Your task to perform on an android device: Clear the cart on amazon.com. Add apple airpods pro to the cart on amazon.com, then select checkout. Image 0: 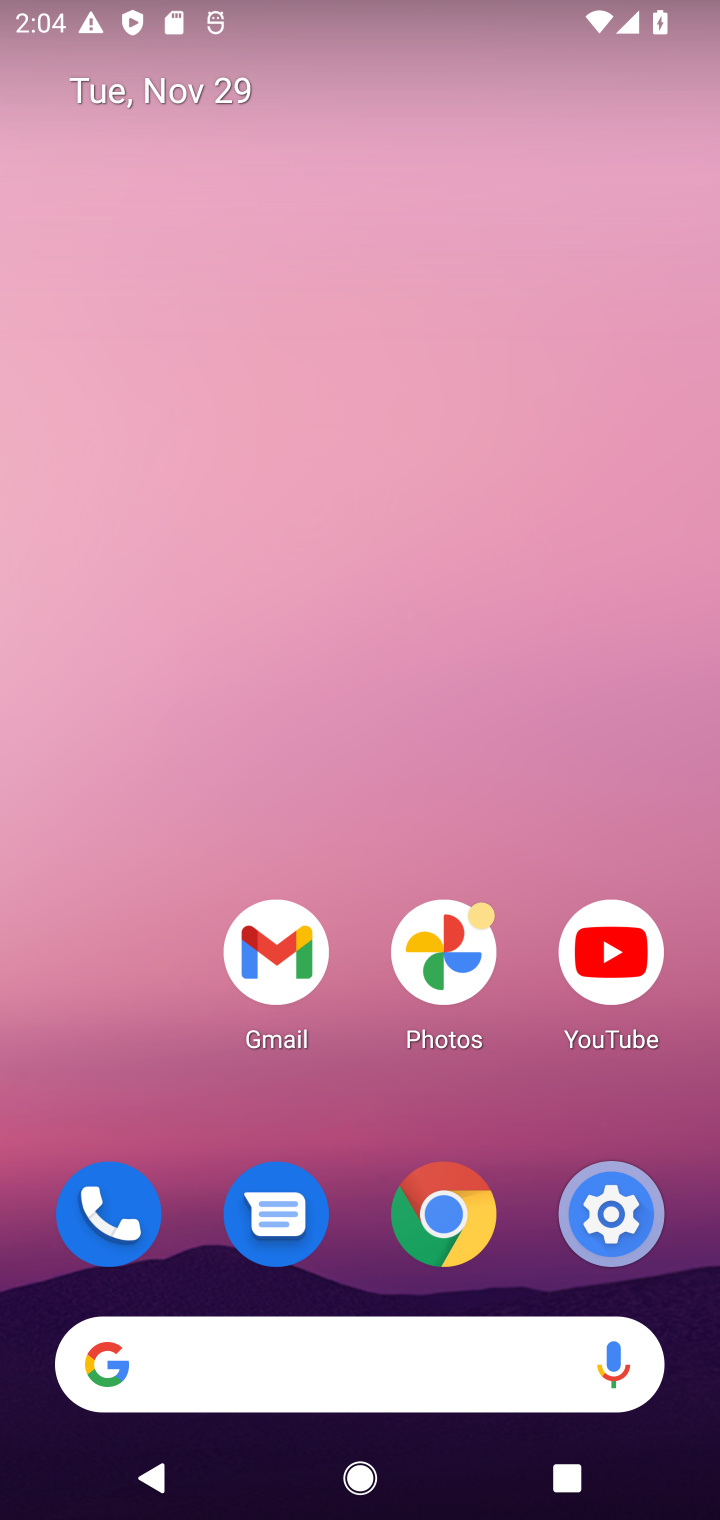
Step 0: click (456, 1360)
Your task to perform on an android device: Clear the cart on amazon.com. Add apple airpods pro to the cart on amazon.com, then select checkout. Image 1: 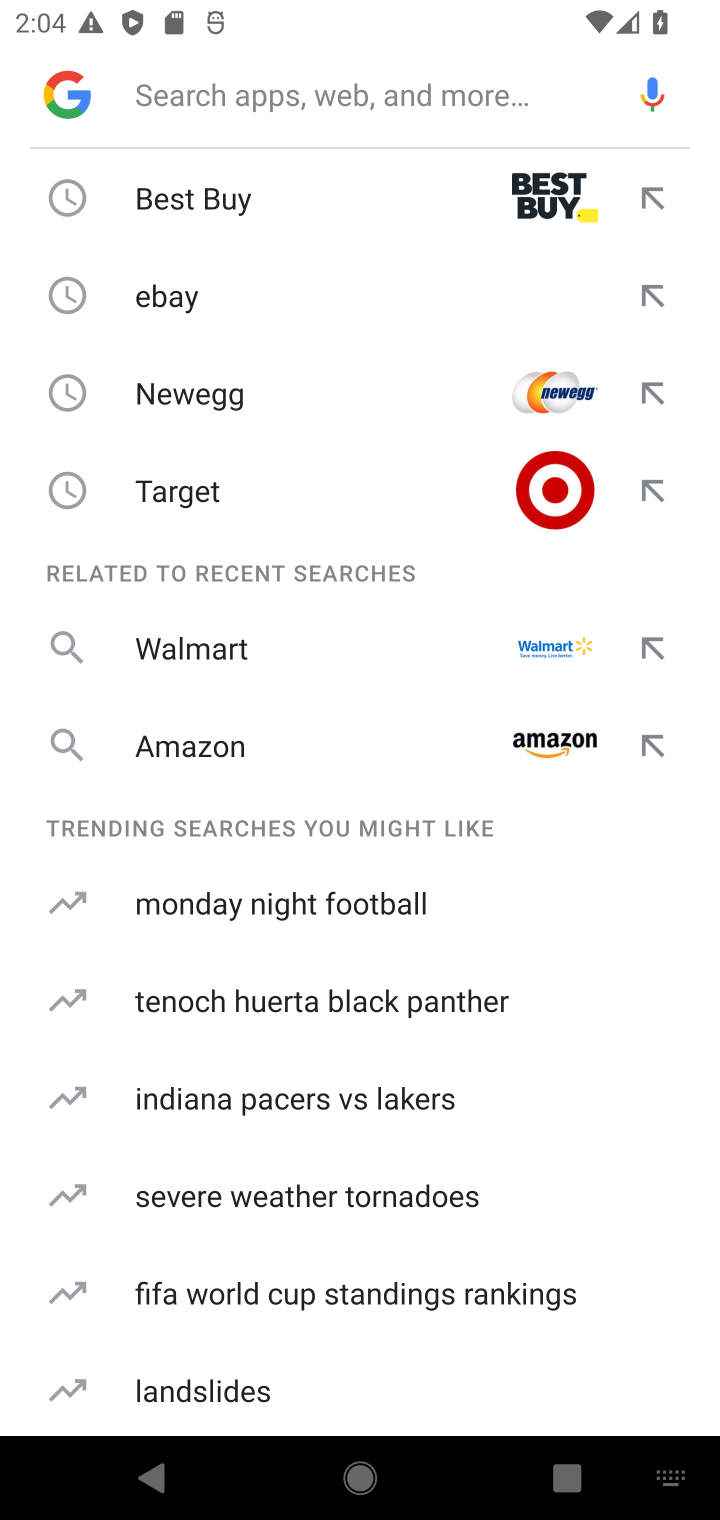
Step 1: type "amazon "
Your task to perform on an android device: Clear the cart on amazon.com. Add apple airpods pro to the cart on amazon.com, then select checkout. Image 2: 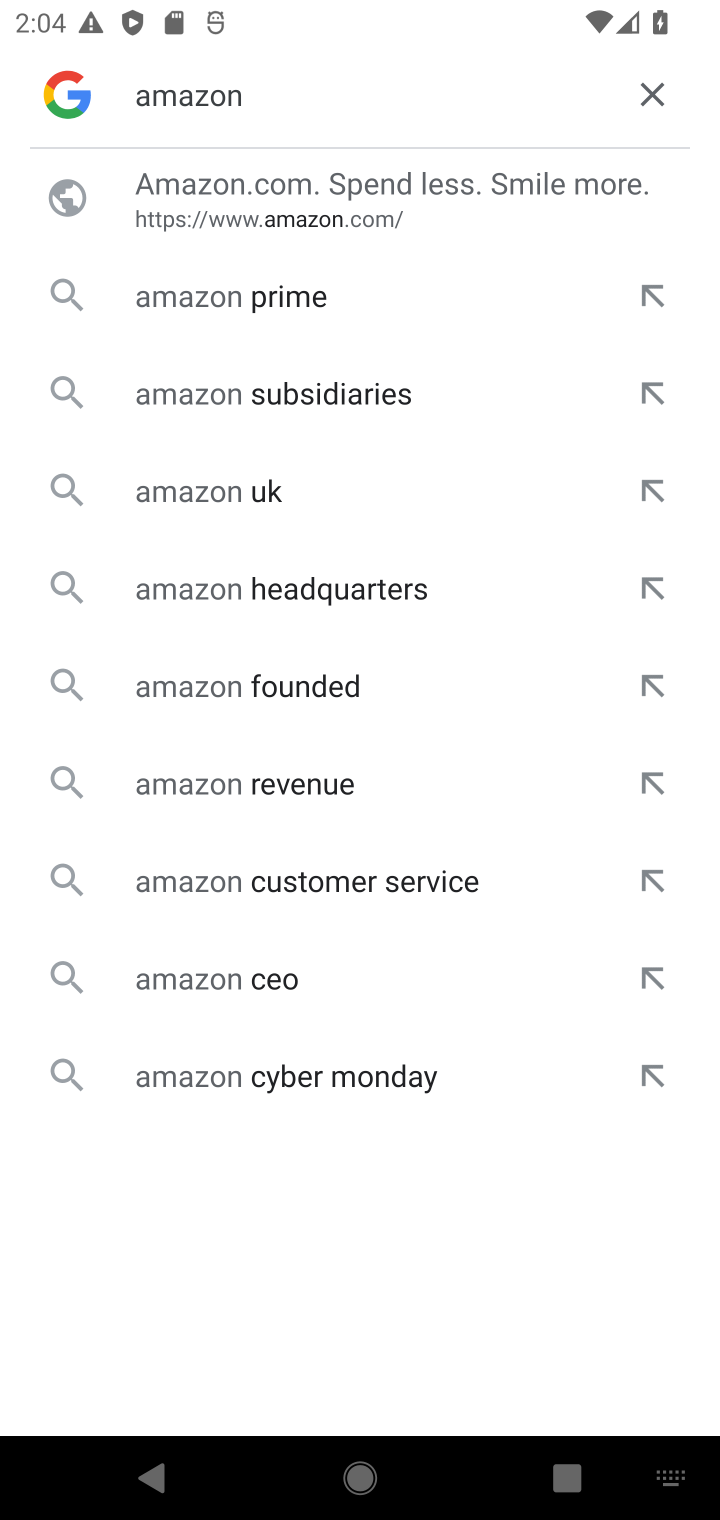
Step 2: click (310, 212)
Your task to perform on an android device: Clear the cart on amazon.com. Add apple airpods pro to the cart on amazon.com, then select checkout. Image 3: 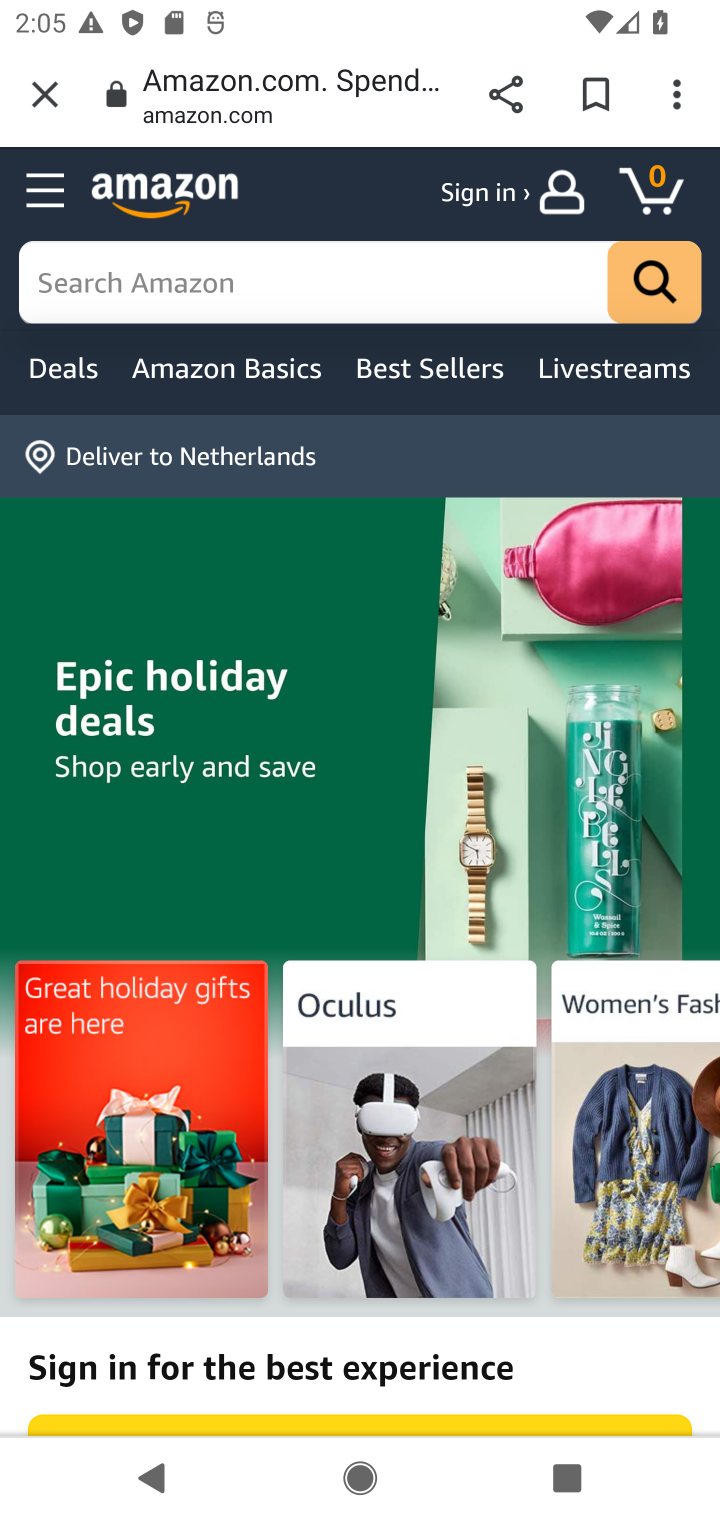
Step 3: click (290, 277)
Your task to perform on an android device: Clear the cart on amazon.com. Add apple airpods pro to the cart on amazon.com, then select checkout. Image 4: 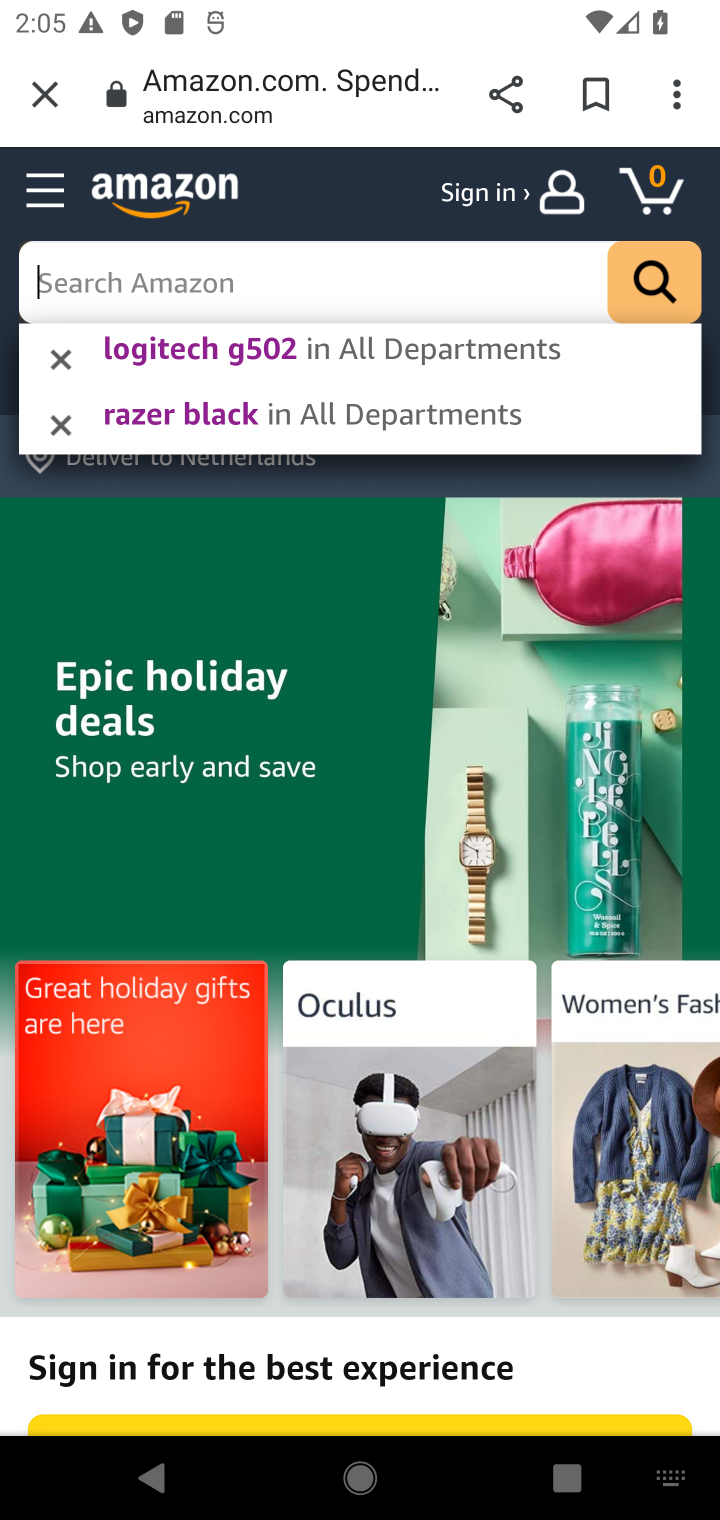
Step 4: type "apple airpod"
Your task to perform on an android device: Clear the cart on amazon.com. Add apple airpods pro to the cart on amazon.com, then select checkout. Image 5: 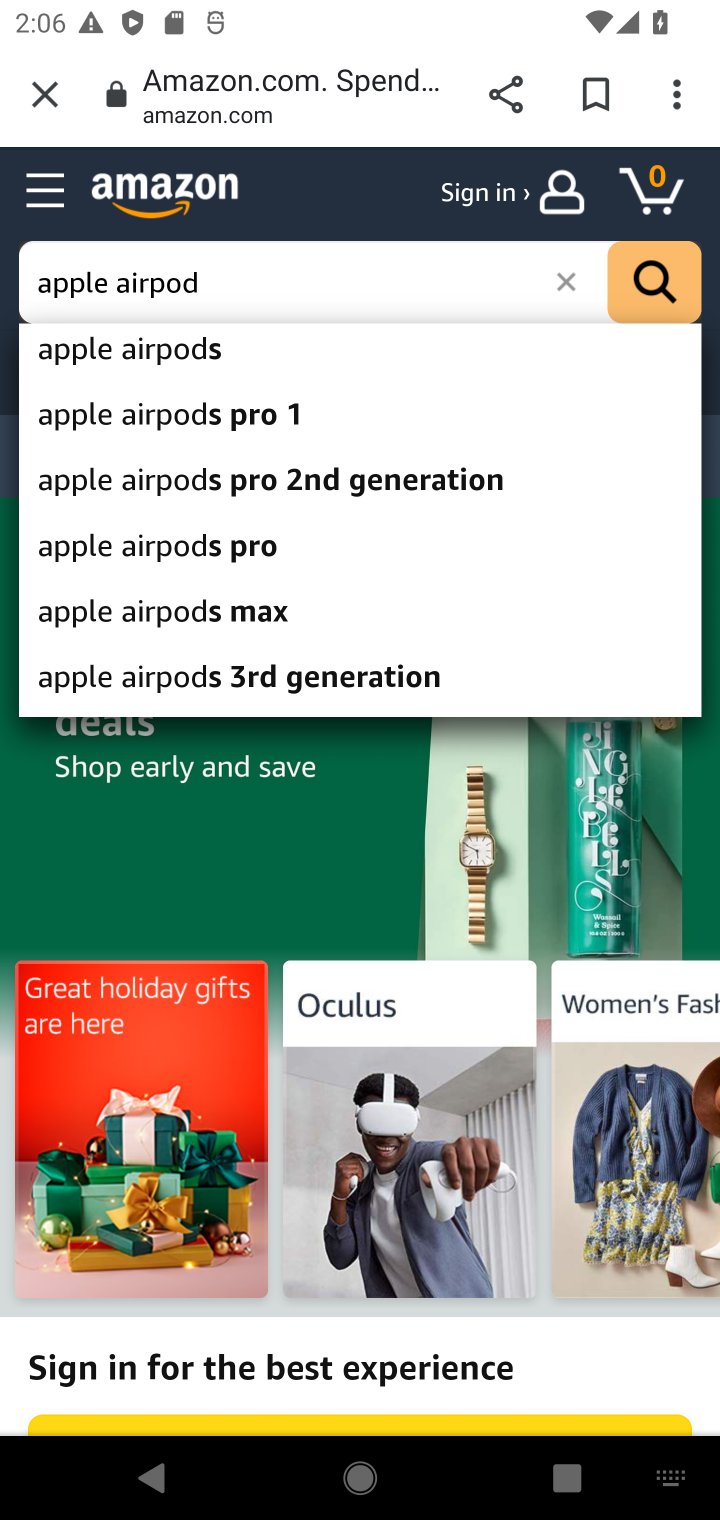
Step 5: click (155, 356)
Your task to perform on an android device: Clear the cart on amazon.com. Add apple airpods pro to the cart on amazon.com, then select checkout. Image 6: 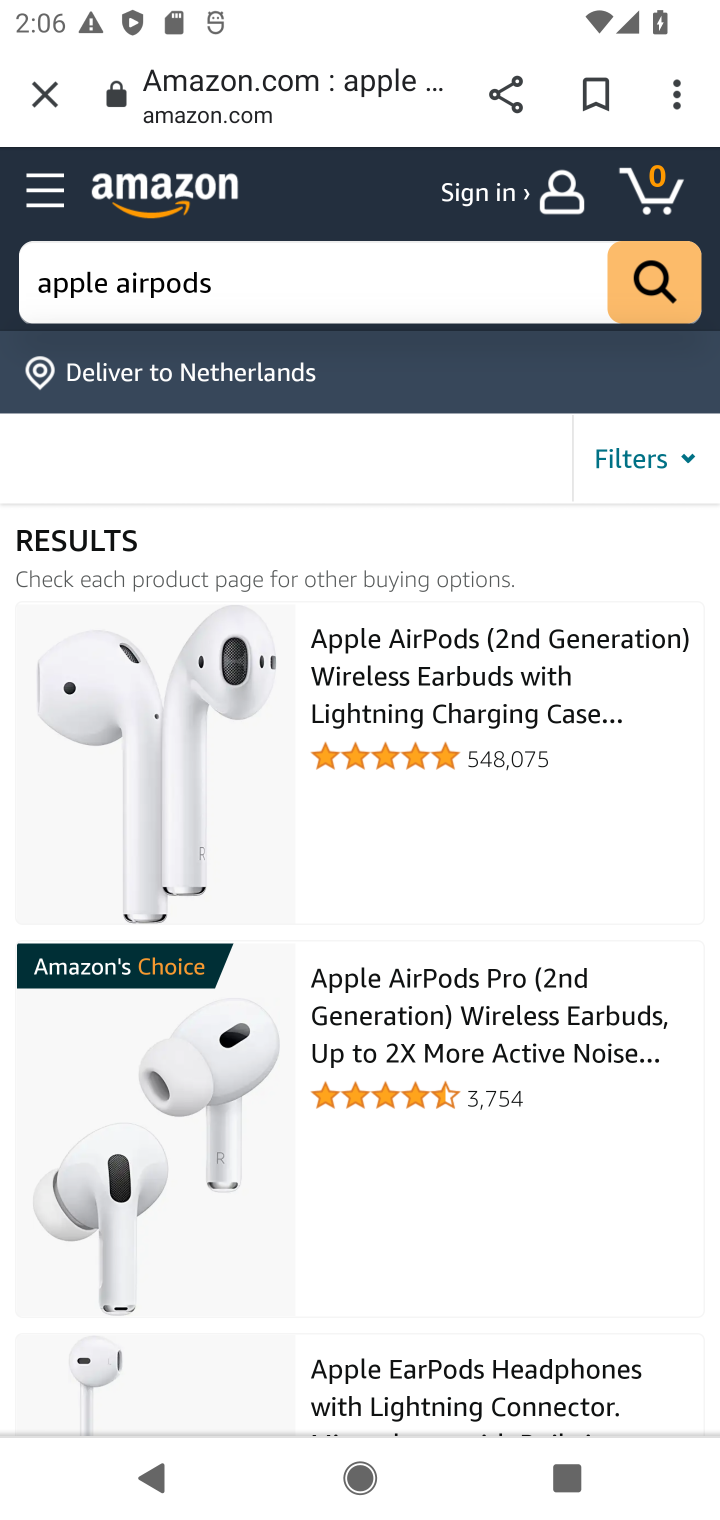
Step 6: click (378, 693)
Your task to perform on an android device: Clear the cart on amazon.com. Add apple airpods pro to the cart on amazon.com, then select checkout. Image 7: 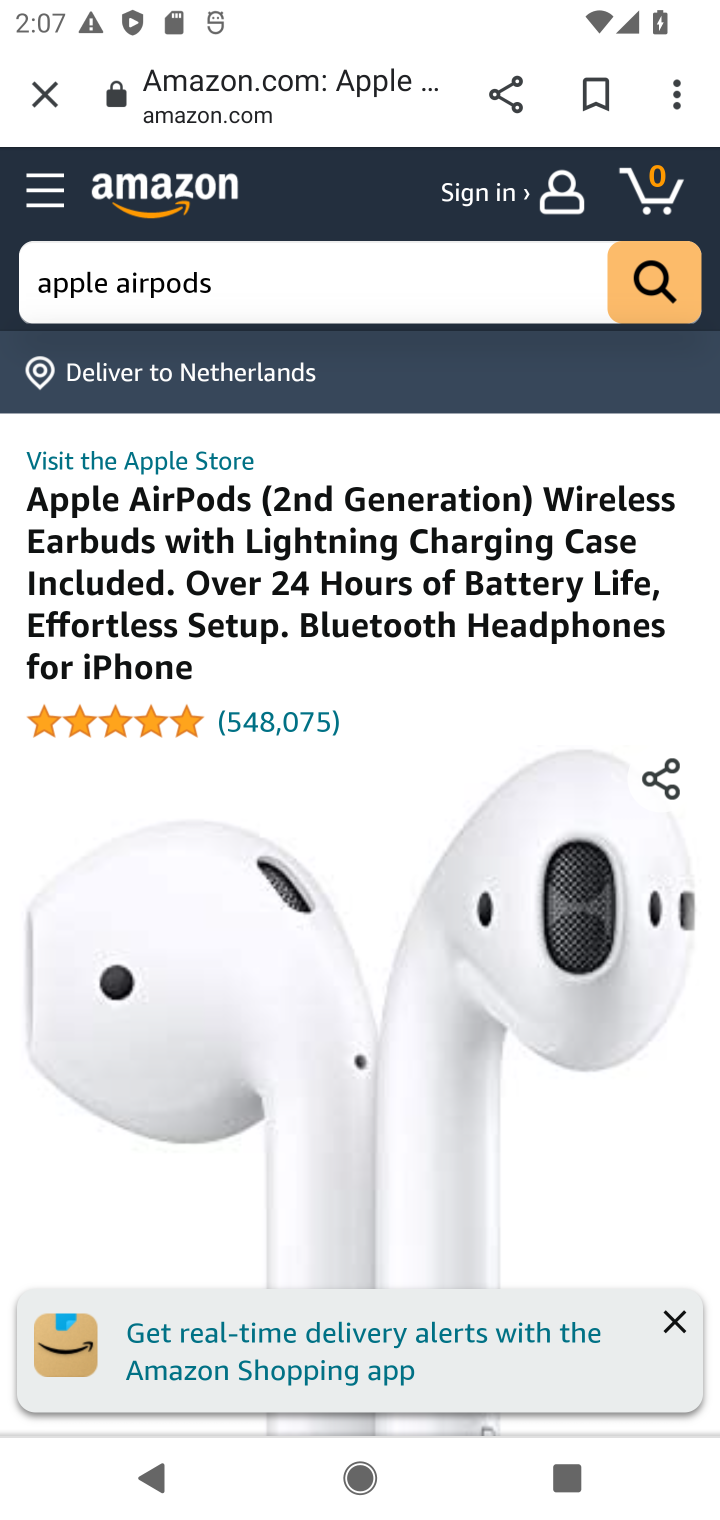
Step 7: task complete